Your task to perform on an android device: Open Google Image 0: 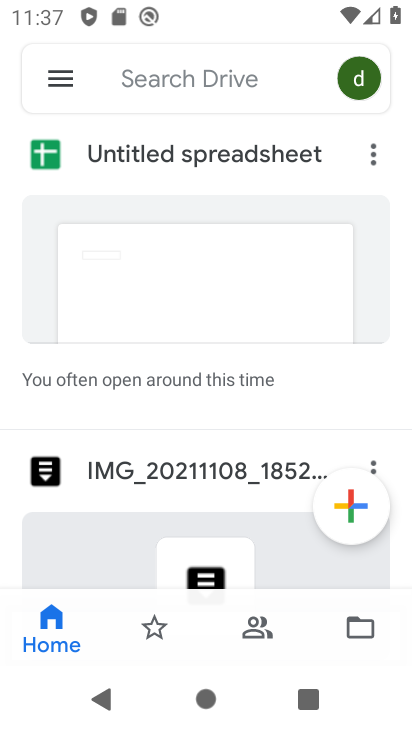
Step 0: press home button
Your task to perform on an android device: Open Google Image 1: 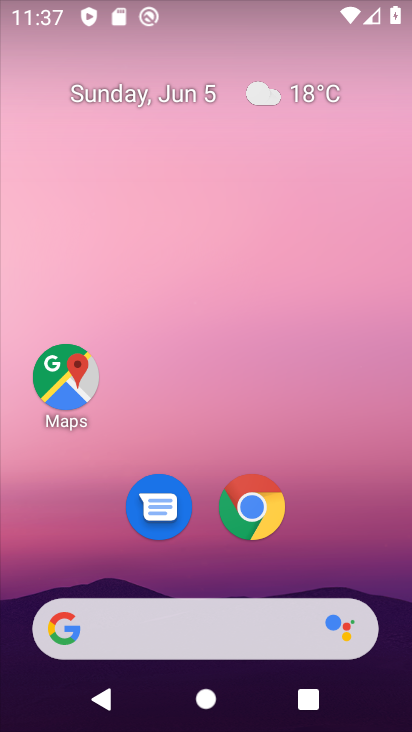
Step 1: drag from (331, 530) to (335, 104)
Your task to perform on an android device: Open Google Image 2: 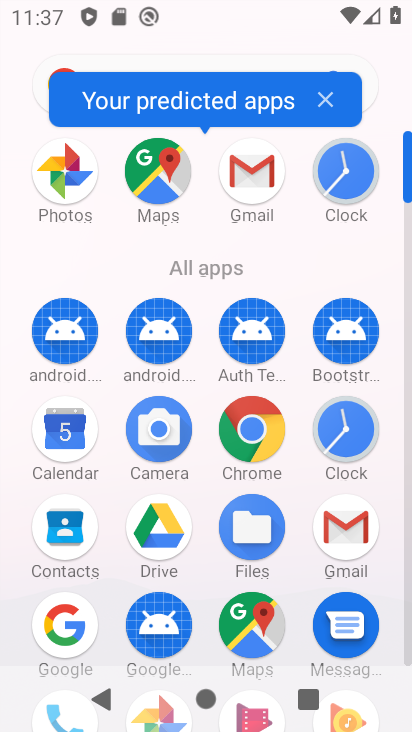
Step 2: click (66, 635)
Your task to perform on an android device: Open Google Image 3: 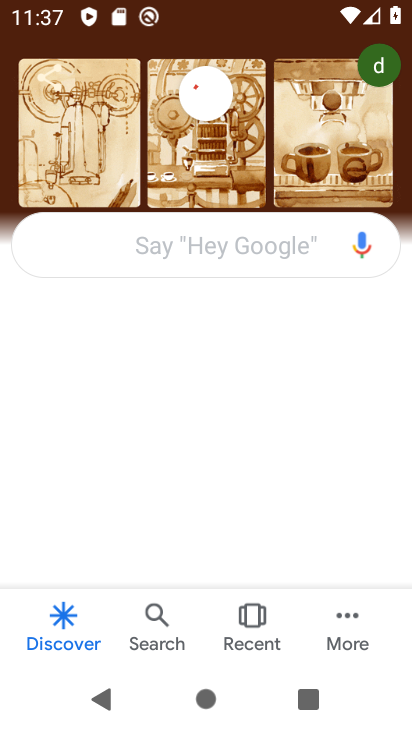
Step 3: task complete